Your task to perform on an android device: turn off priority inbox in the gmail app Image 0: 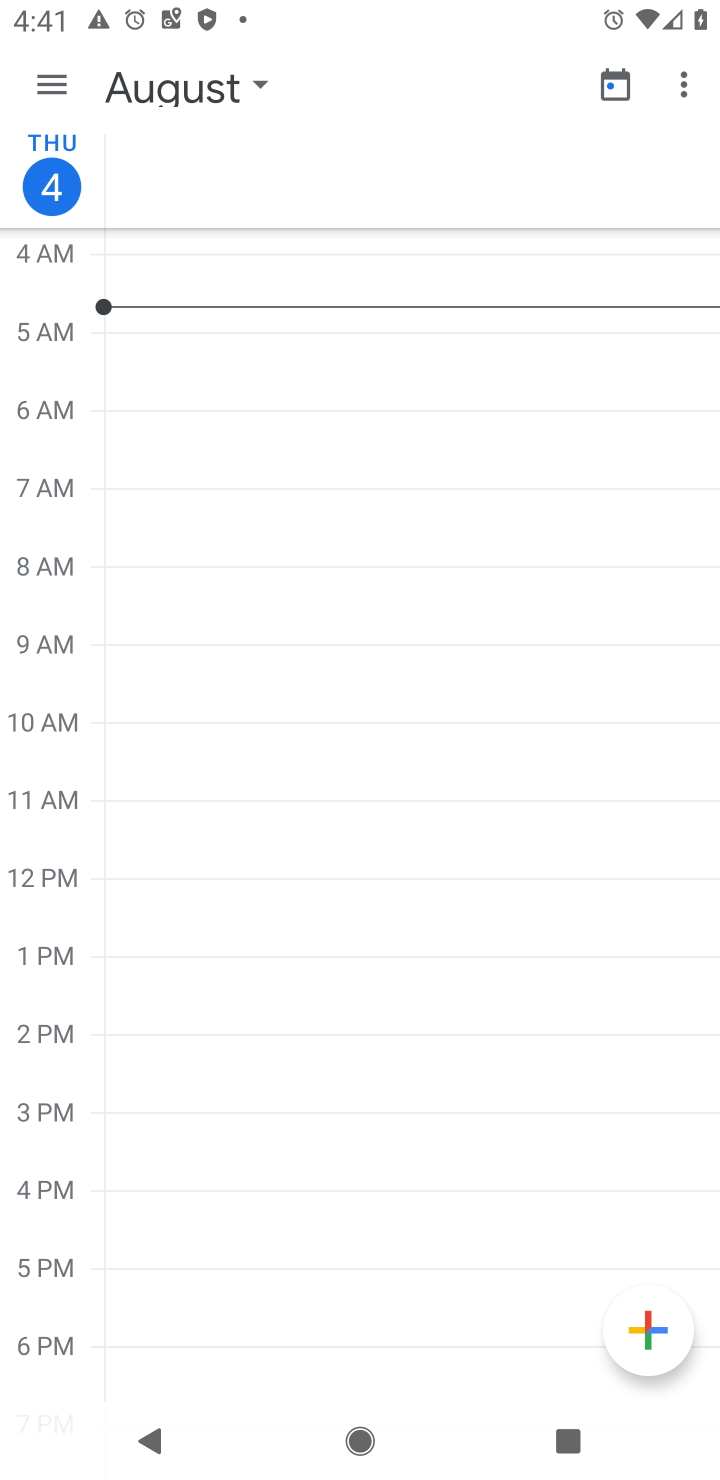
Step 0: press home button
Your task to perform on an android device: turn off priority inbox in the gmail app Image 1: 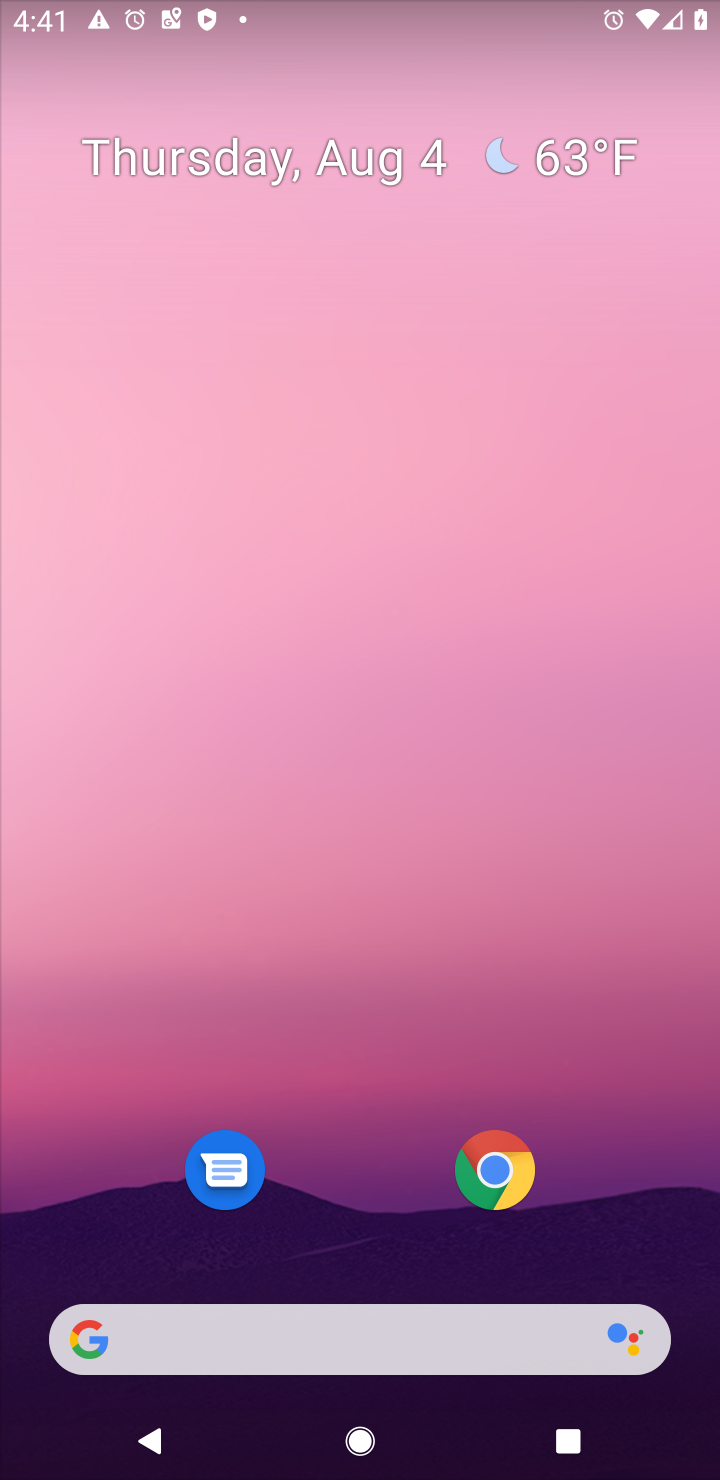
Step 1: drag from (604, 1097) to (480, 186)
Your task to perform on an android device: turn off priority inbox in the gmail app Image 2: 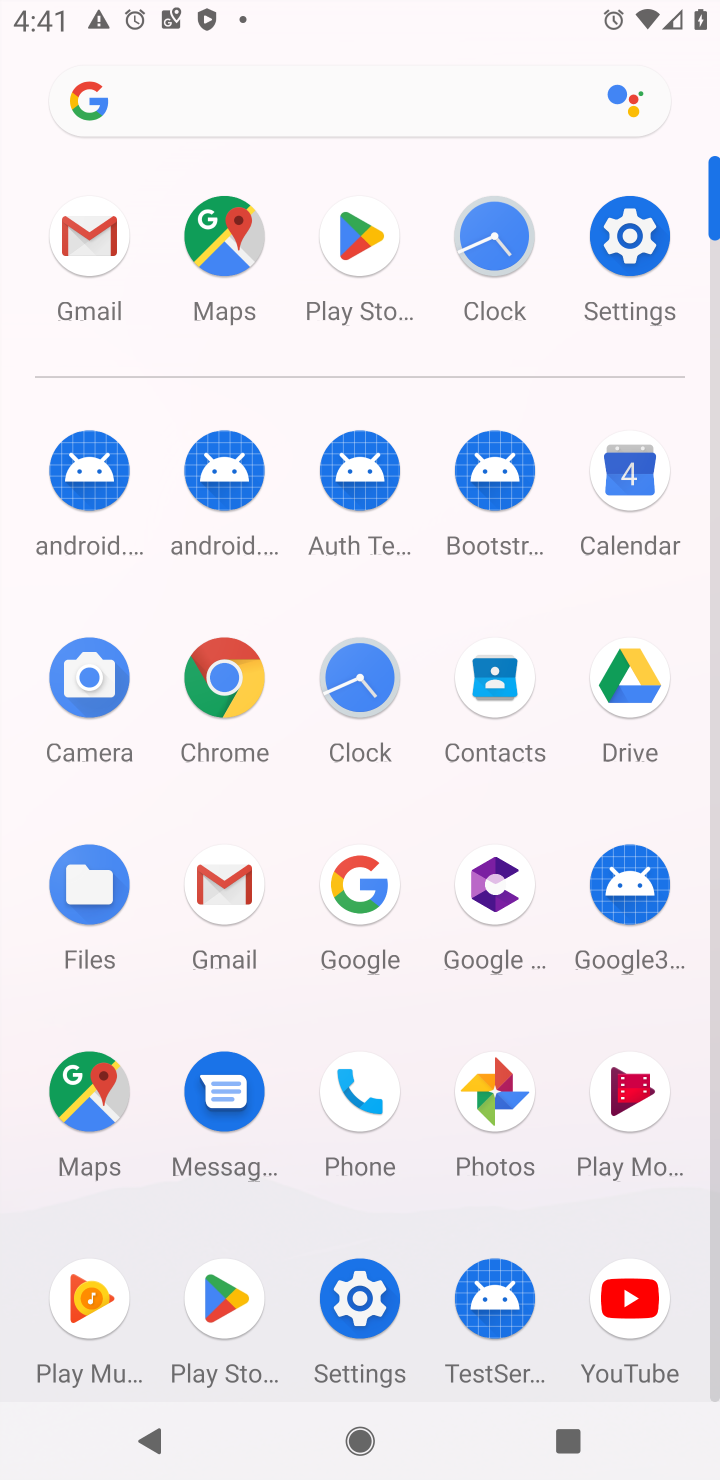
Step 2: click (221, 887)
Your task to perform on an android device: turn off priority inbox in the gmail app Image 3: 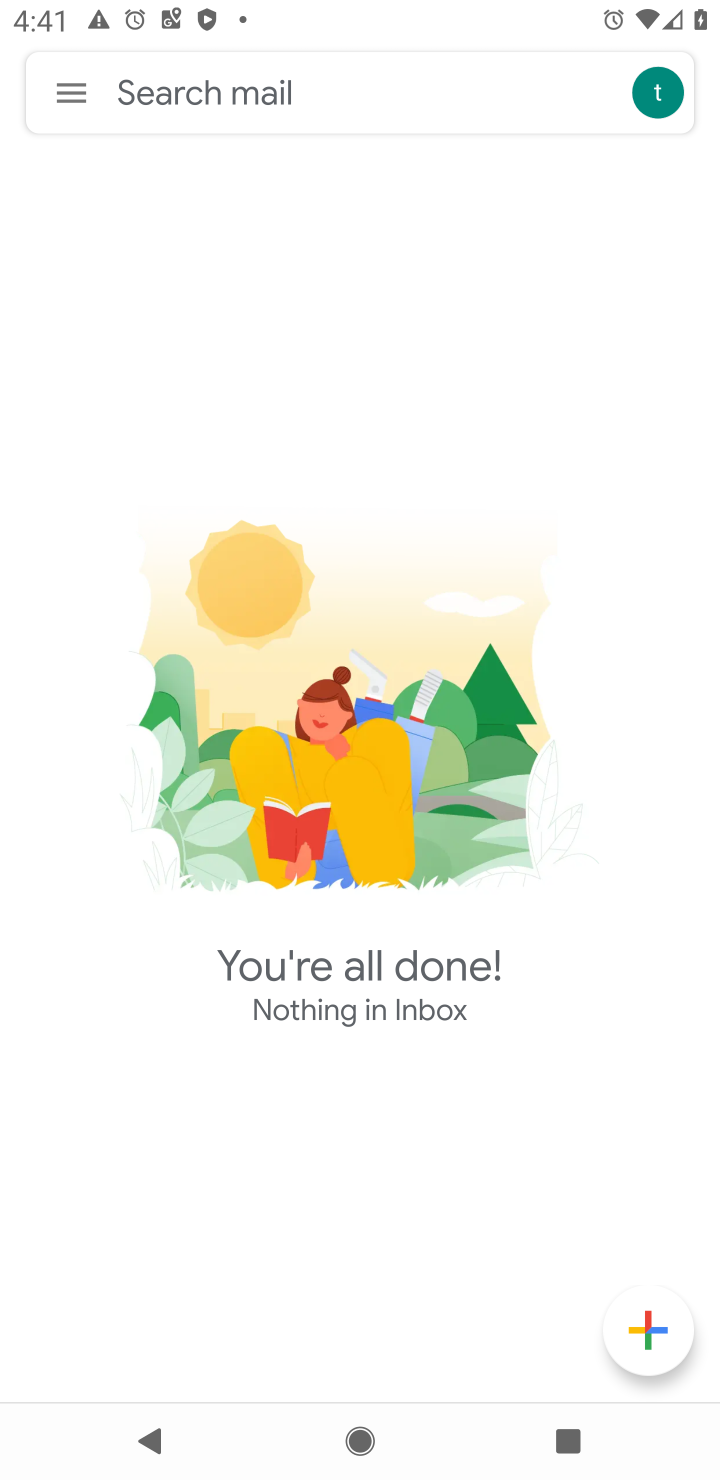
Step 3: click (71, 97)
Your task to perform on an android device: turn off priority inbox in the gmail app Image 4: 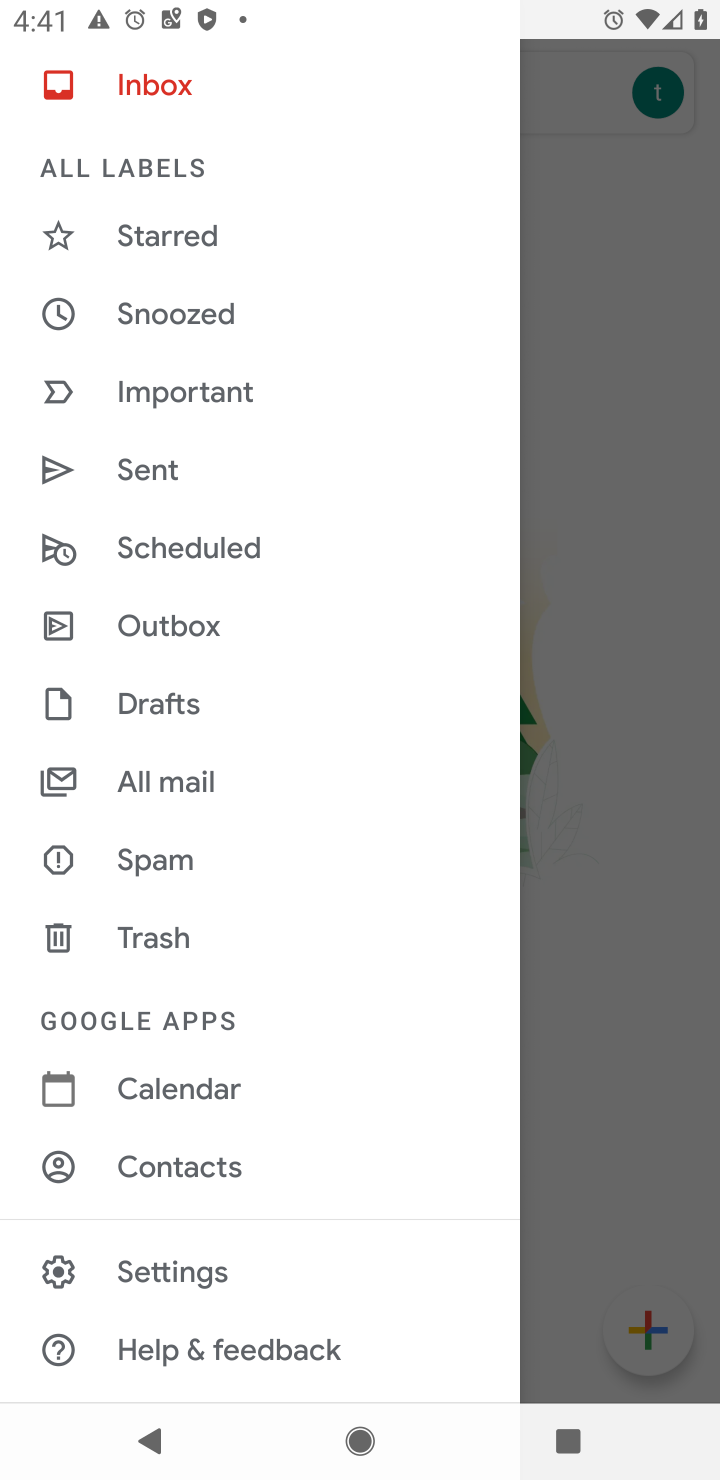
Step 4: click (131, 1272)
Your task to perform on an android device: turn off priority inbox in the gmail app Image 5: 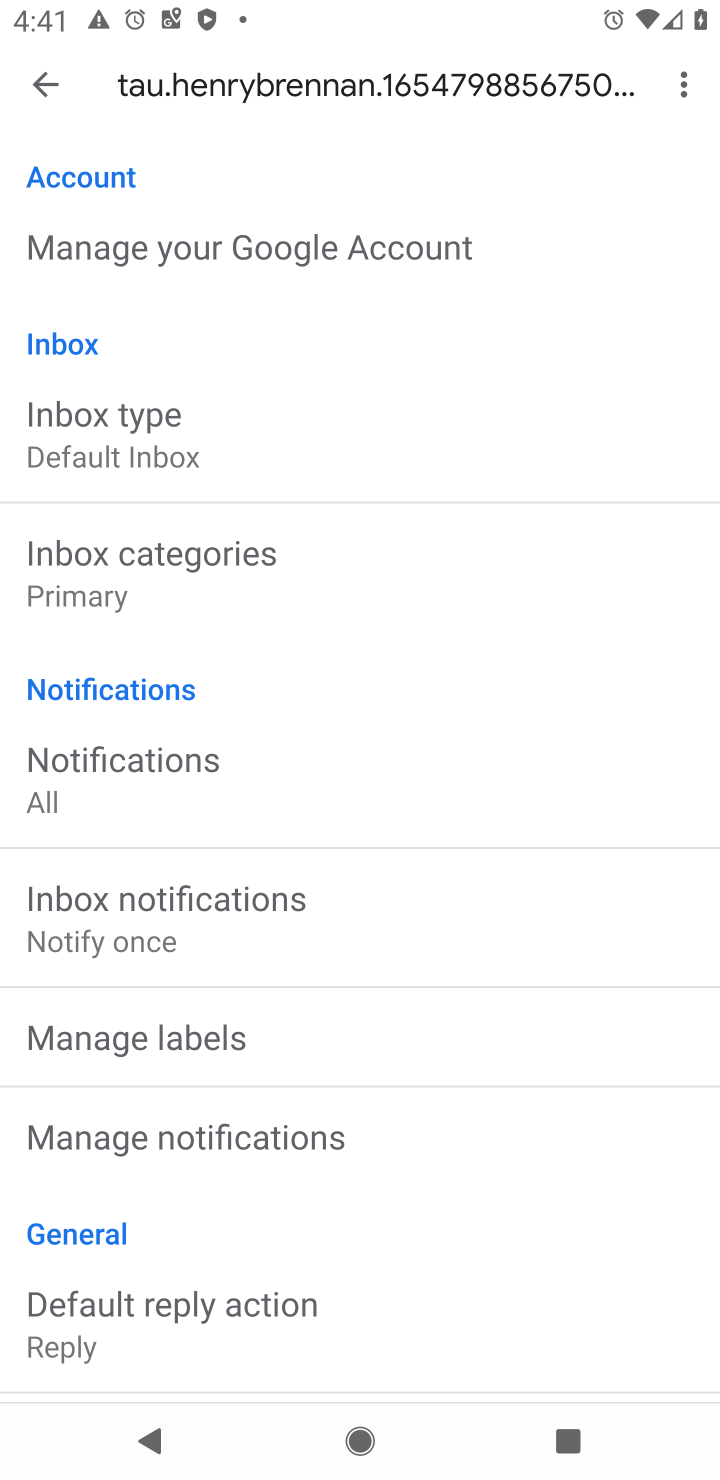
Step 5: click (101, 428)
Your task to perform on an android device: turn off priority inbox in the gmail app Image 6: 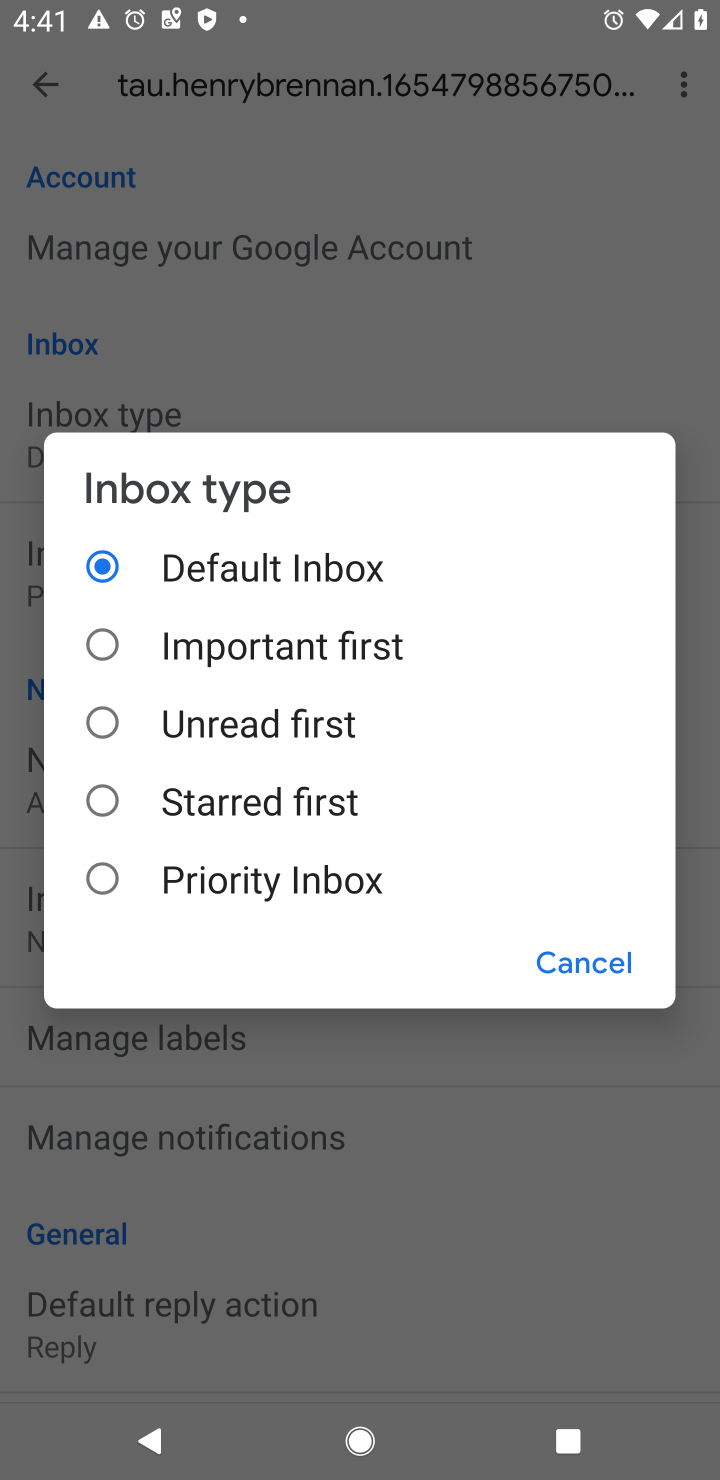
Step 6: task complete